Your task to perform on an android device: turn on notifications settings in the gmail app Image 0: 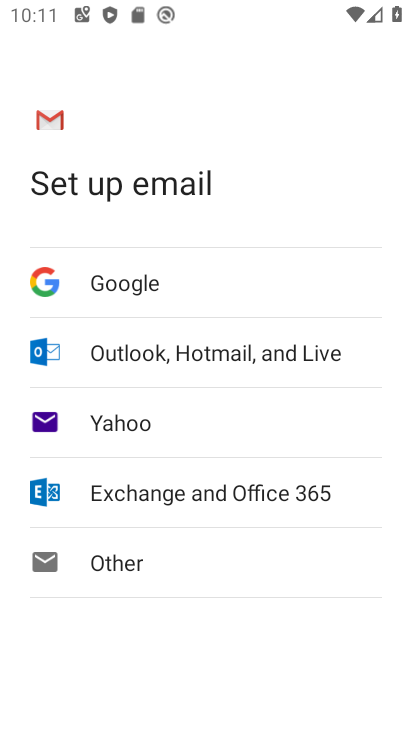
Step 0: press home button
Your task to perform on an android device: turn on notifications settings in the gmail app Image 1: 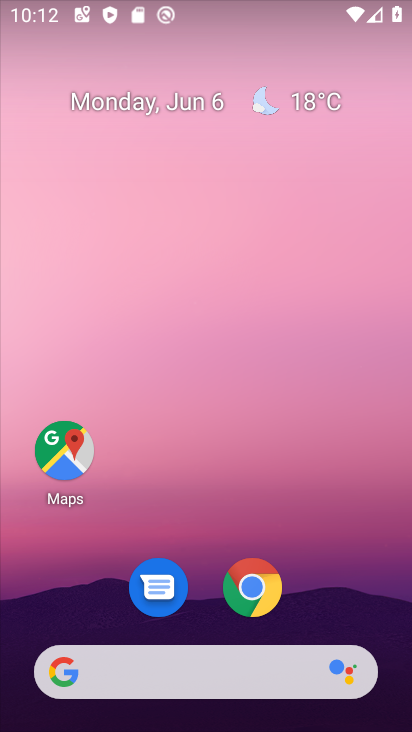
Step 1: drag from (353, 545) to (296, 50)
Your task to perform on an android device: turn on notifications settings in the gmail app Image 2: 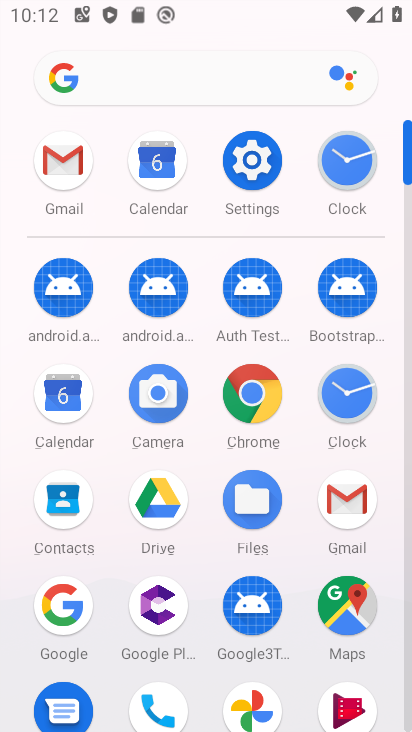
Step 2: click (249, 174)
Your task to perform on an android device: turn on notifications settings in the gmail app Image 3: 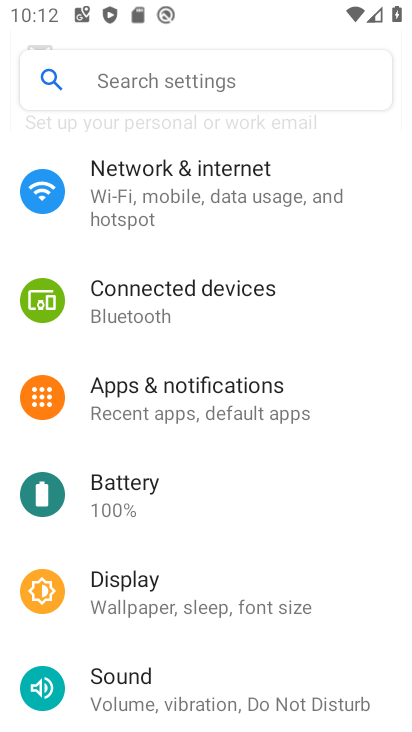
Step 3: press home button
Your task to perform on an android device: turn on notifications settings in the gmail app Image 4: 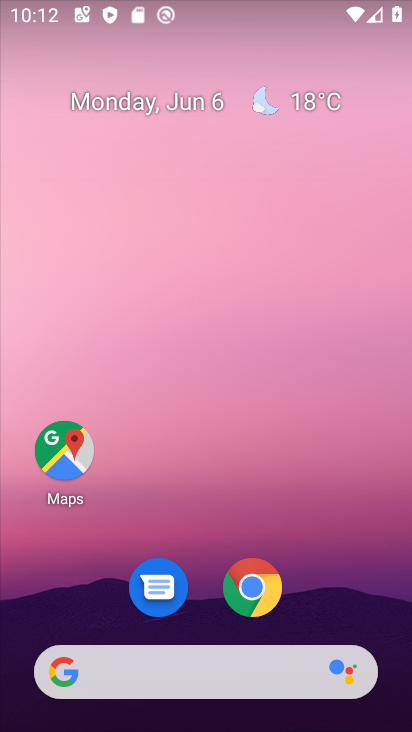
Step 4: drag from (311, 535) to (240, 57)
Your task to perform on an android device: turn on notifications settings in the gmail app Image 5: 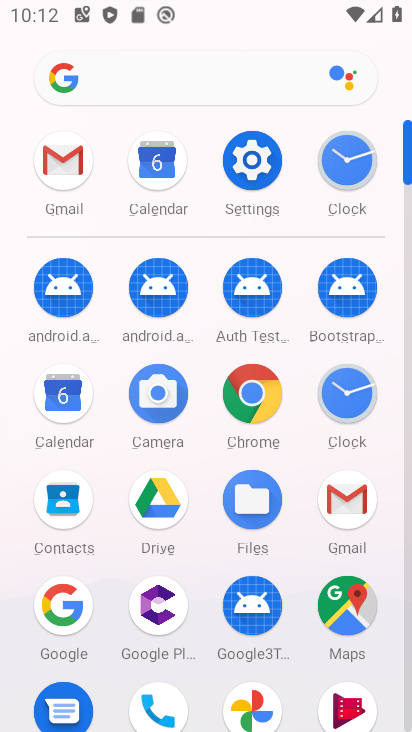
Step 5: click (56, 174)
Your task to perform on an android device: turn on notifications settings in the gmail app Image 6: 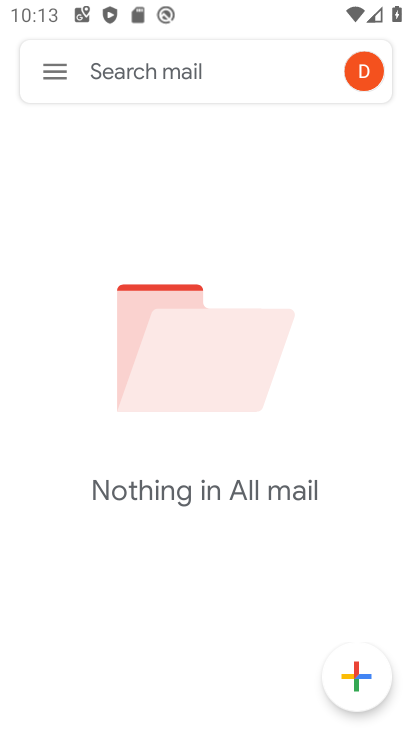
Step 6: click (47, 61)
Your task to perform on an android device: turn on notifications settings in the gmail app Image 7: 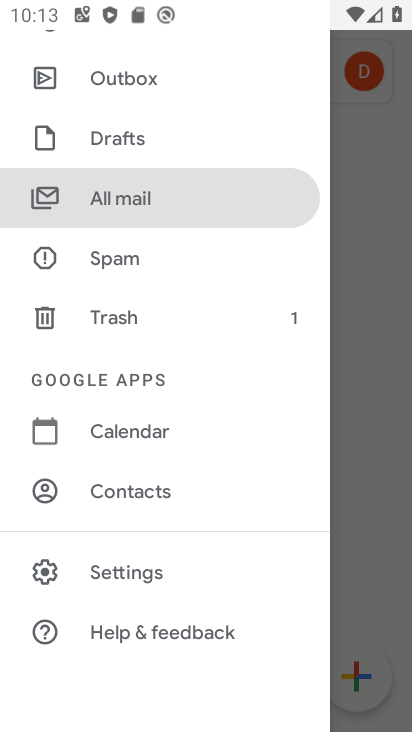
Step 7: click (82, 567)
Your task to perform on an android device: turn on notifications settings in the gmail app Image 8: 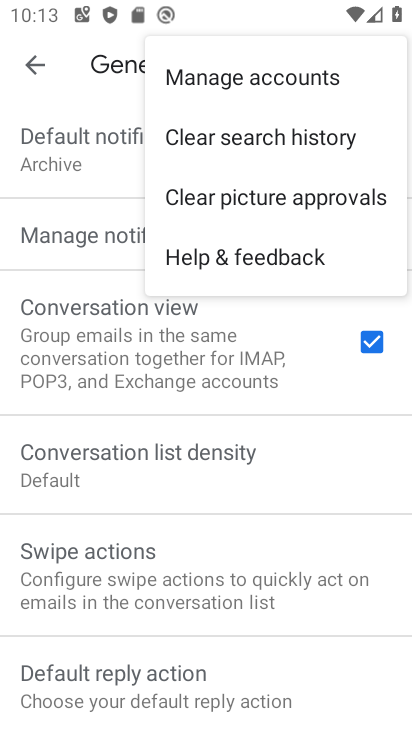
Step 8: click (48, 141)
Your task to perform on an android device: turn on notifications settings in the gmail app Image 9: 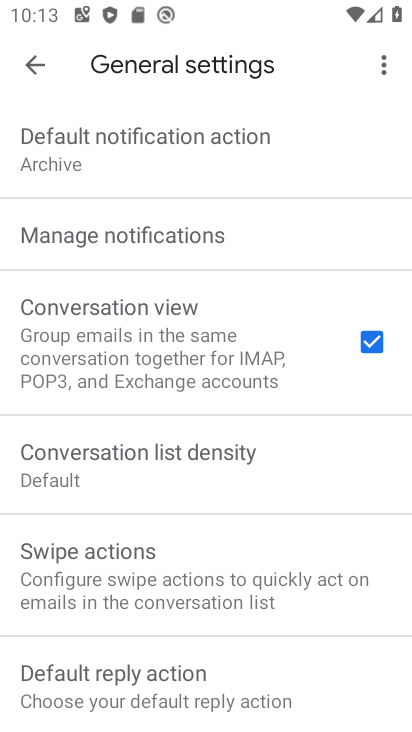
Step 9: click (141, 239)
Your task to perform on an android device: turn on notifications settings in the gmail app Image 10: 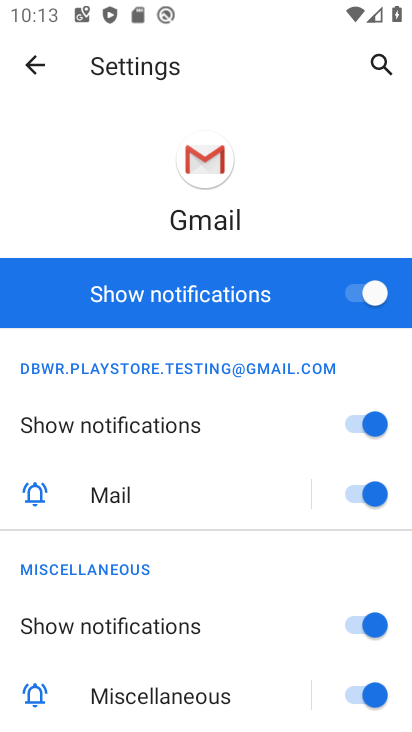
Step 10: task complete